Your task to perform on an android device: uninstall "Speedtest by Ookla" Image 0: 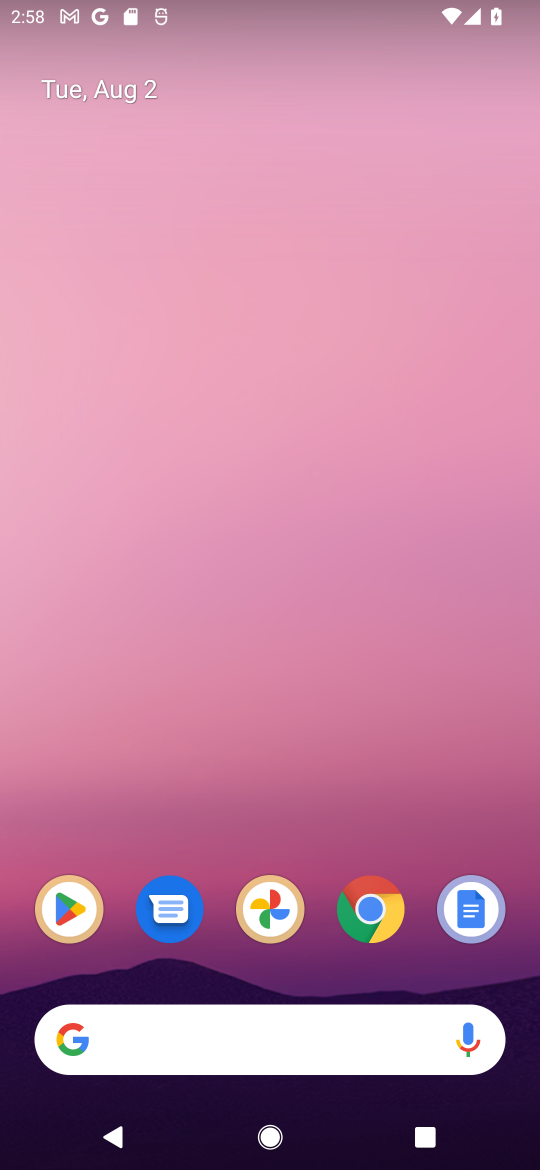
Step 0: drag from (218, 929) to (306, 439)
Your task to perform on an android device: uninstall "Speedtest by Ookla" Image 1: 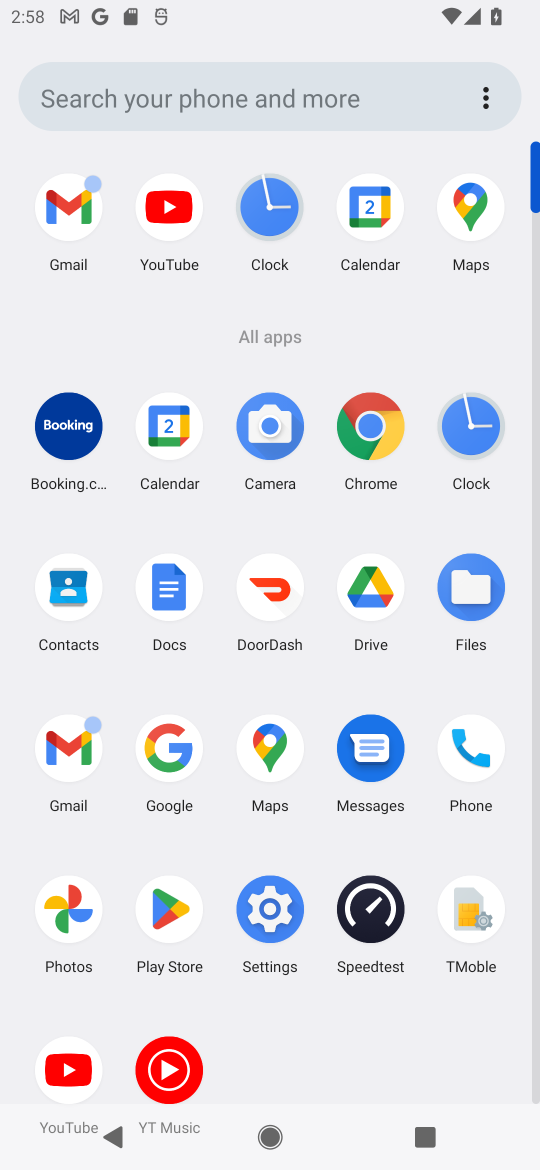
Step 1: drag from (214, 967) to (481, 132)
Your task to perform on an android device: uninstall "Speedtest by Ookla" Image 2: 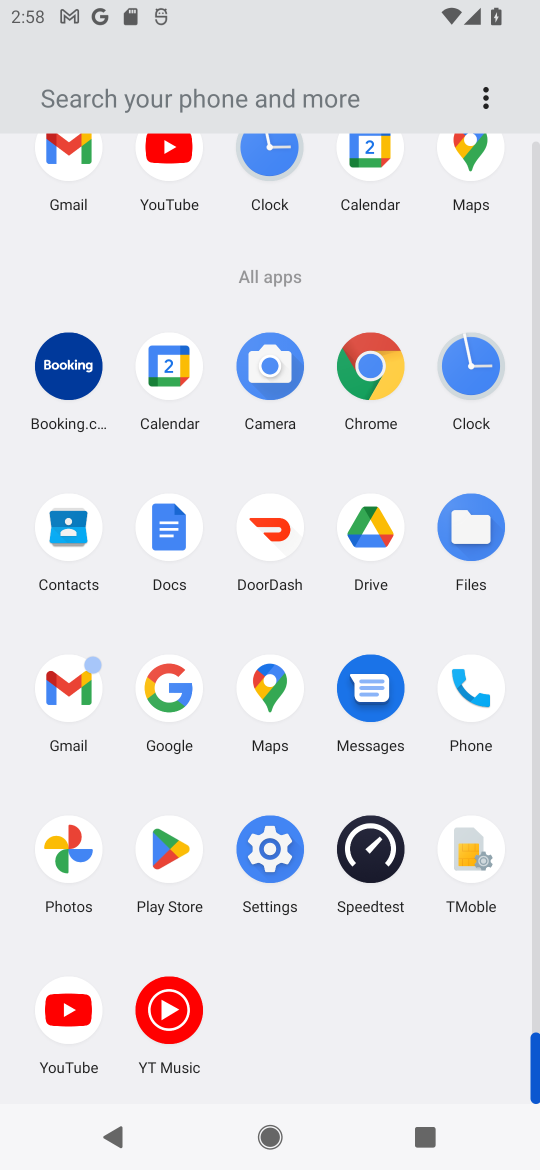
Step 2: drag from (299, 963) to (335, 290)
Your task to perform on an android device: uninstall "Speedtest by Ookla" Image 3: 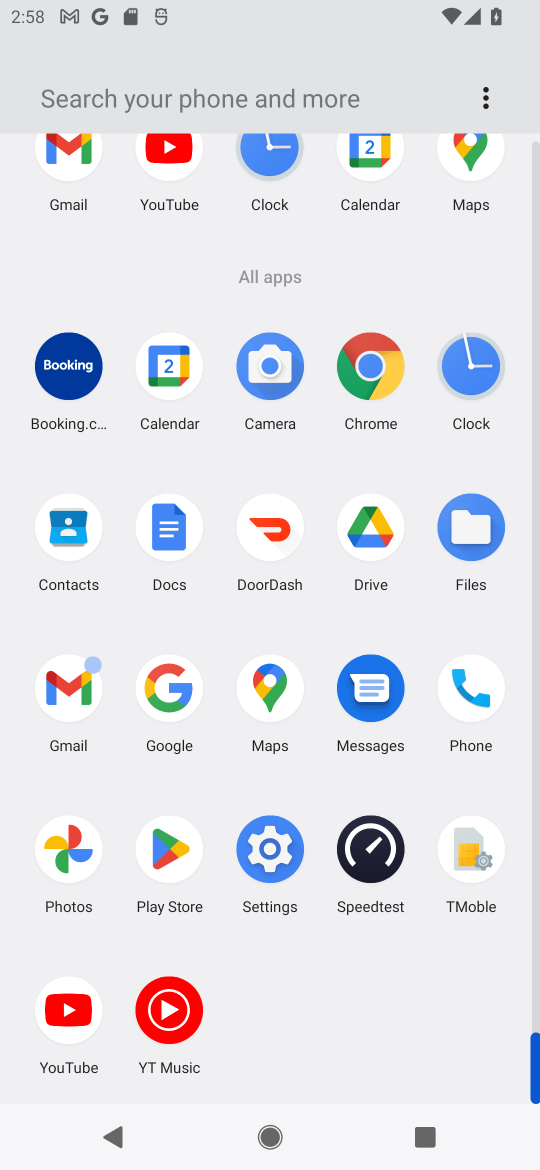
Step 3: click (162, 848)
Your task to perform on an android device: uninstall "Speedtest by Ookla" Image 4: 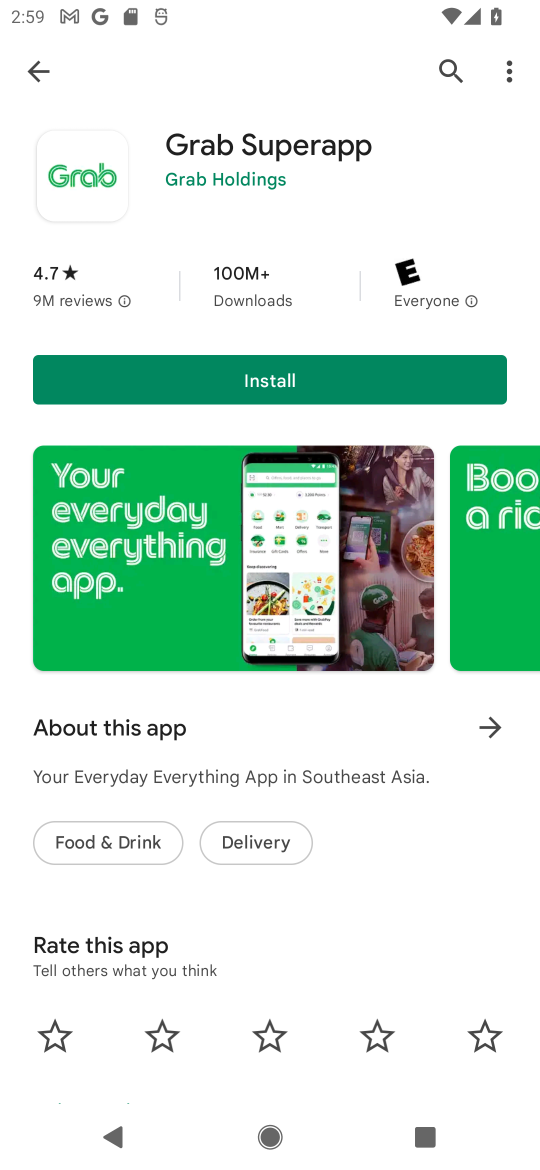
Step 4: click (453, 54)
Your task to perform on an android device: uninstall "Speedtest by Ookla" Image 5: 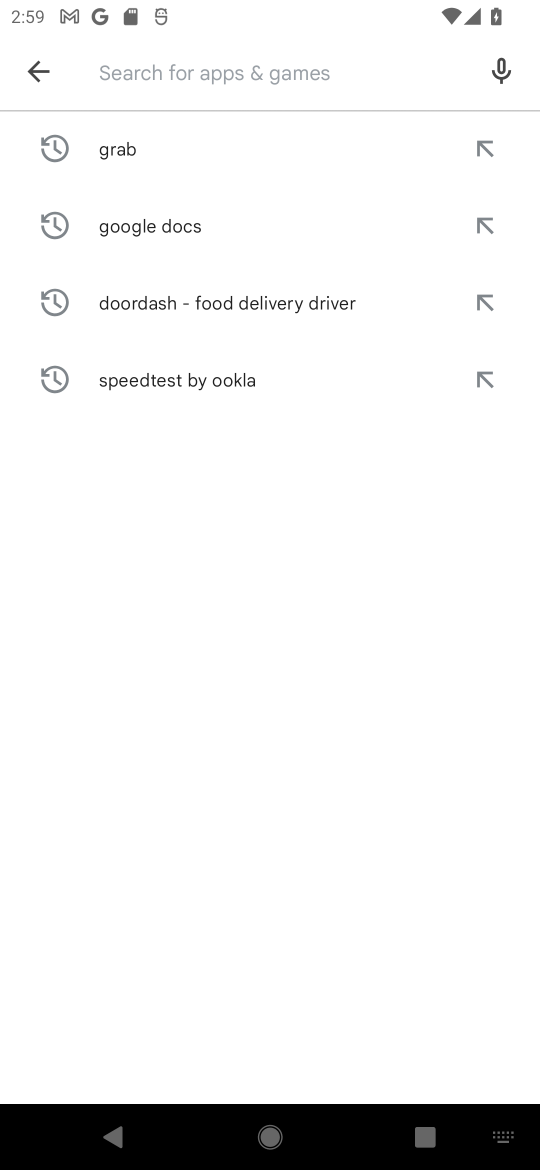
Step 5: type "Speedtest by Ookla"
Your task to perform on an android device: uninstall "Speedtest by Ookla" Image 6: 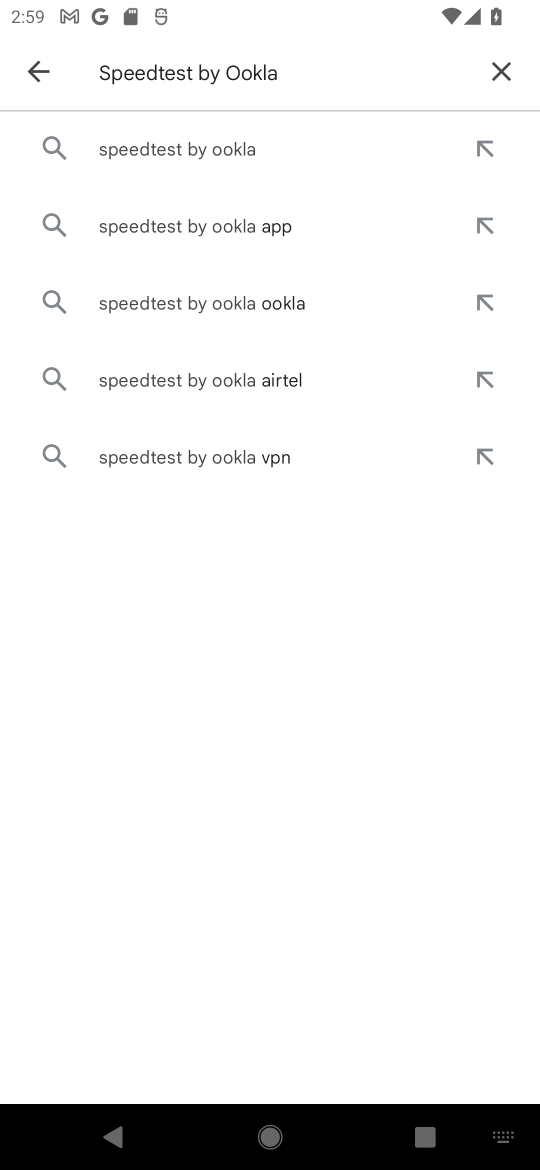
Step 6: click (191, 161)
Your task to perform on an android device: uninstall "Speedtest by Ookla" Image 7: 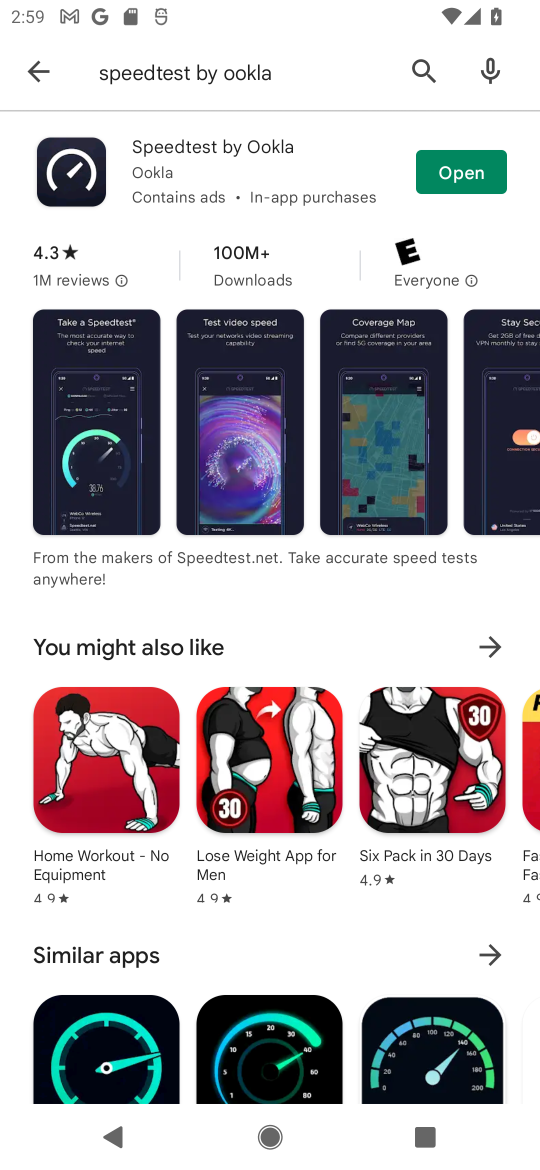
Step 7: click (218, 151)
Your task to perform on an android device: uninstall "Speedtest by Ookla" Image 8: 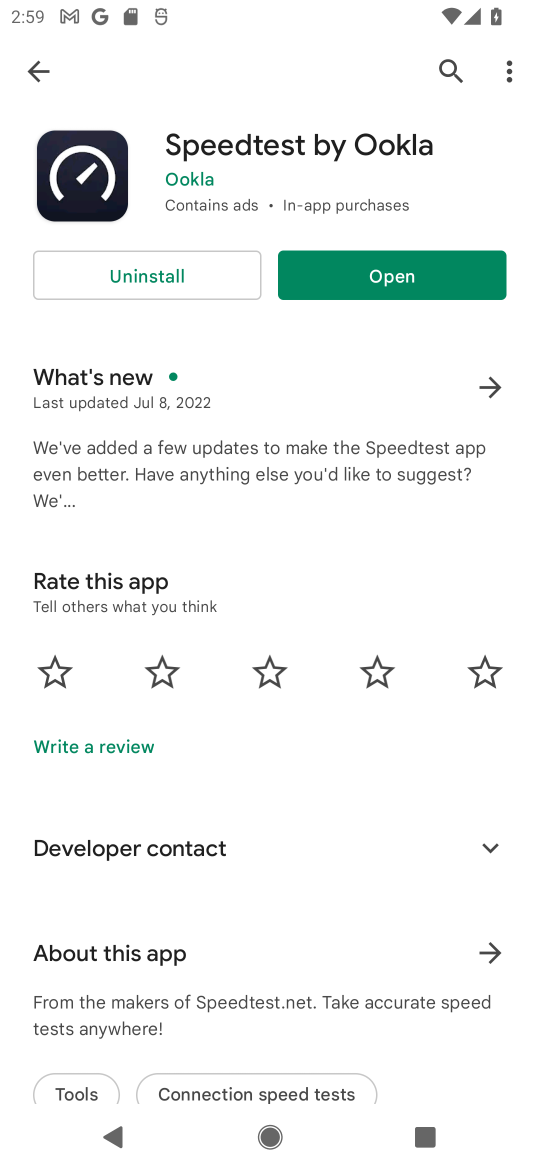
Step 8: click (85, 279)
Your task to perform on an android device: uninstall "Speedtest by Ookla" Image 9: 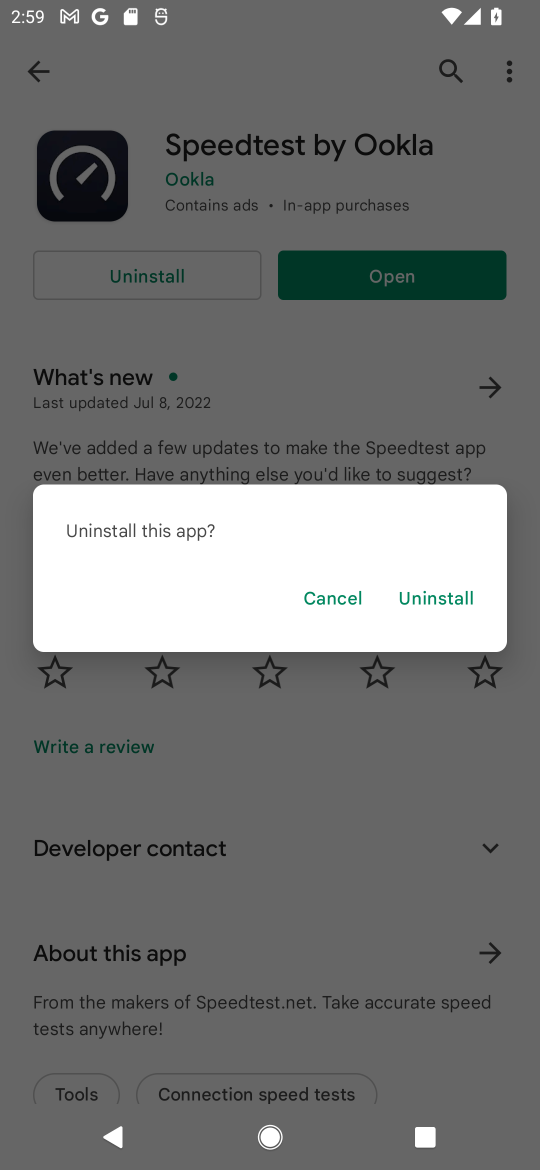
Step 9: click (428, 613)
Your task to perform on an android device: uninstall "Speedtest by Ookla" Image 10: 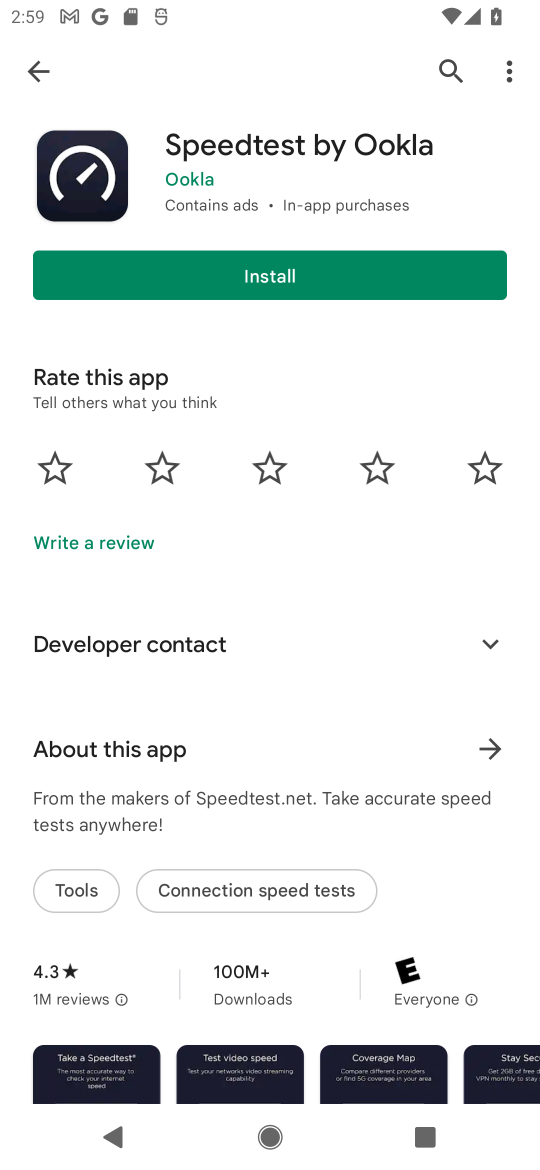
Step 10: task complete